Your task to perform on an android device: Go to accessibility settings Image 0: 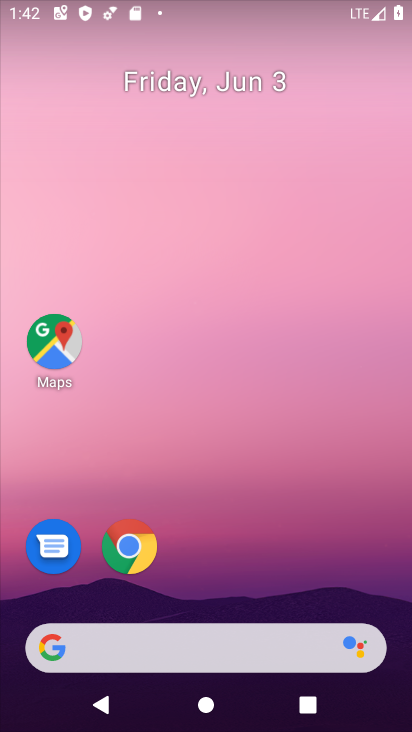
Step 0: drag from (235, 607) to (191, 54)
Your task to perform on an android device: Go to accessibility settings Image 1: 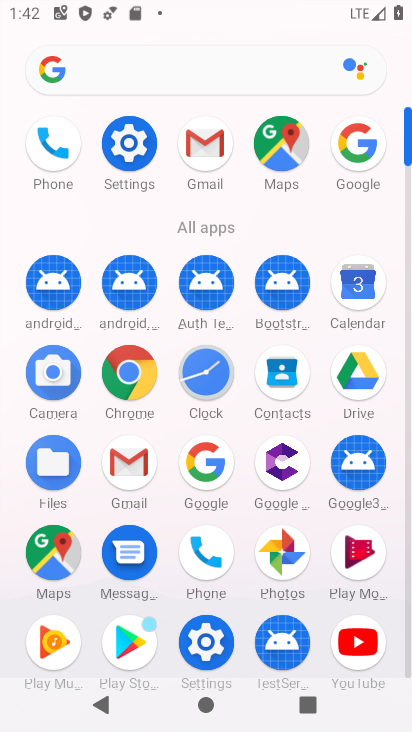
Step 1: click (118, 154)
Your task to perform on an android device: Go to accessibility settings Image 2: 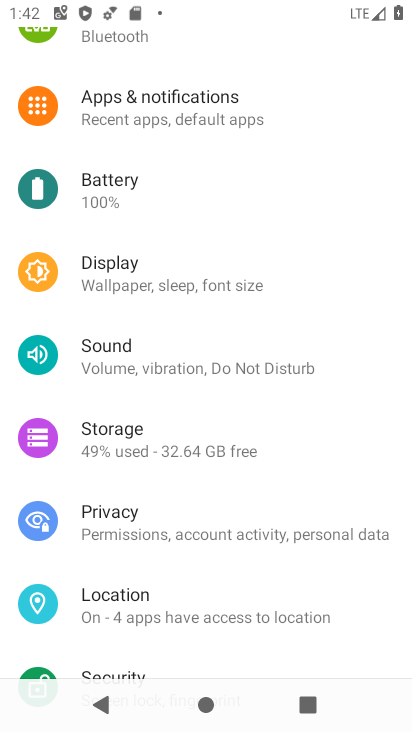
Step 2: drag from (249, 541) to (191, 88)
Your task to perform on an android device: Go to accessibility settings Image 3: 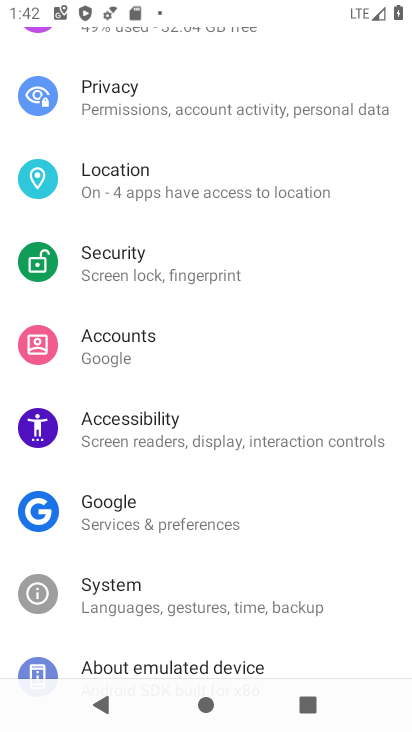
Step 3: click (162, 437)
Your task to perform on an android device: Go to accessibility settings Image 4: 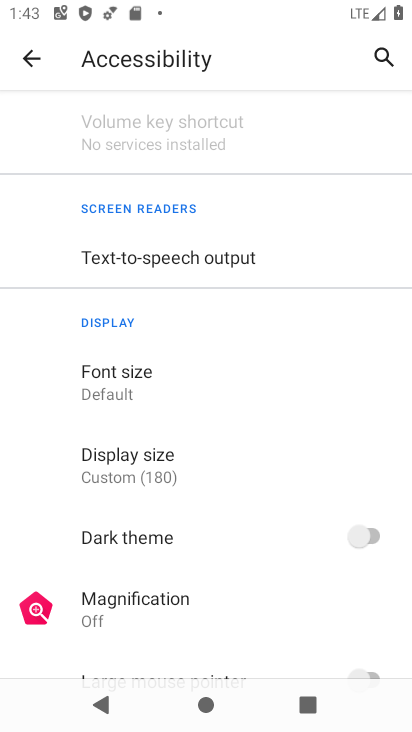
Step 4: task complete